Your task to perform on an android device: move an email to a new category in the gmail app Image 0: 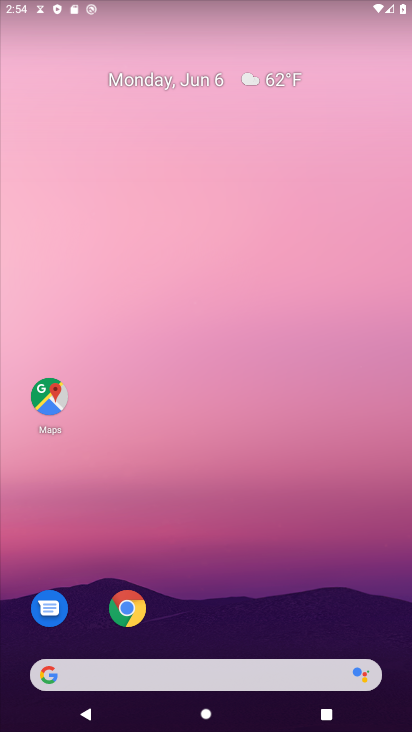
Step 0: drag from (257, 613) to (254, 0)
Your task to perform on an android device: move an email to a new category in the gmail app Image 1: 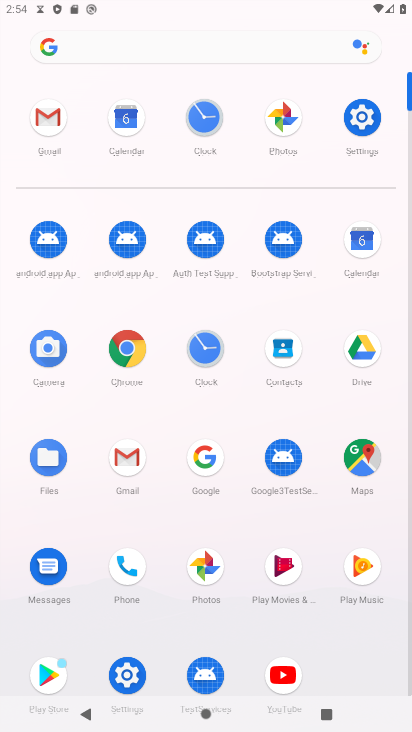
Step 1: click (46, 120)
Your task to perform on an android device: move an email to a new category in the gmail app Image 2: 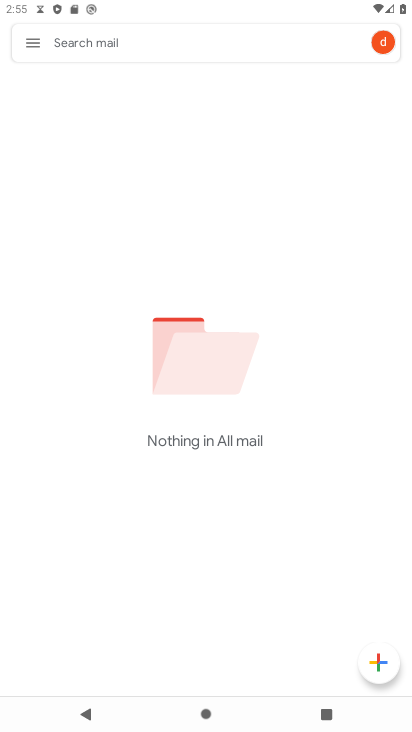
Step 2: click (36, 45)
Your task to perform on an android device: move an email to a new category in the gmail app Image 3: 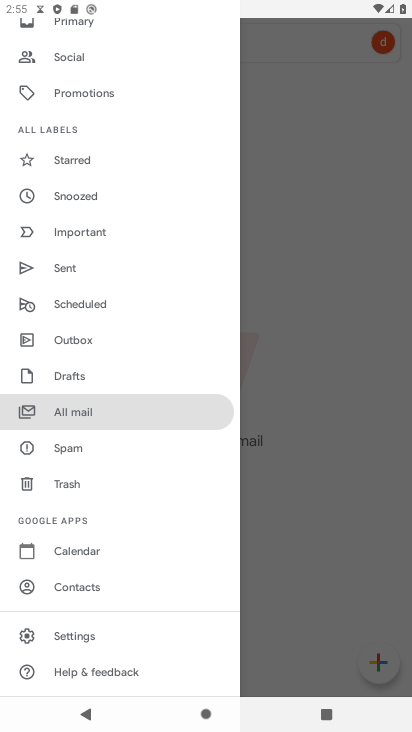
Step 3: click (73, 403)
Your task to perform on an android device: move an email to a new category in the gmail app Image 4: 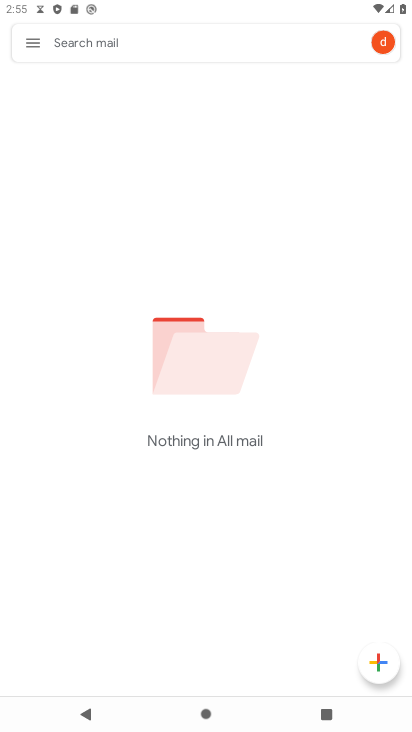
Step 4: task complete